Your task to perform on an android device: turn off notifications in google photos Image 0: 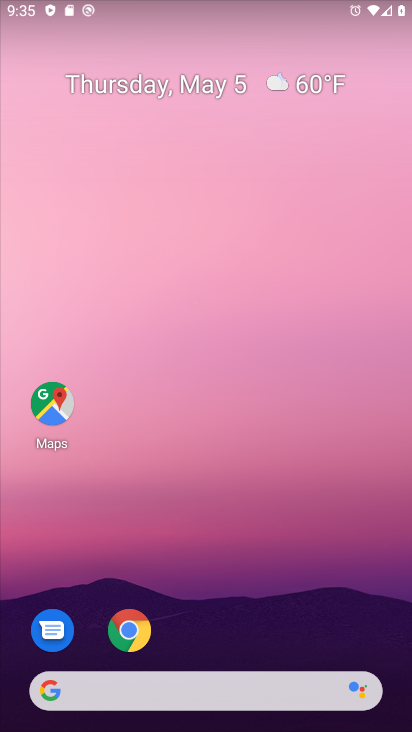
Step 0: drag from (172, 499) to (156, 139)
Your task to perform on an android device: turn off notifications in google photos Image 1: 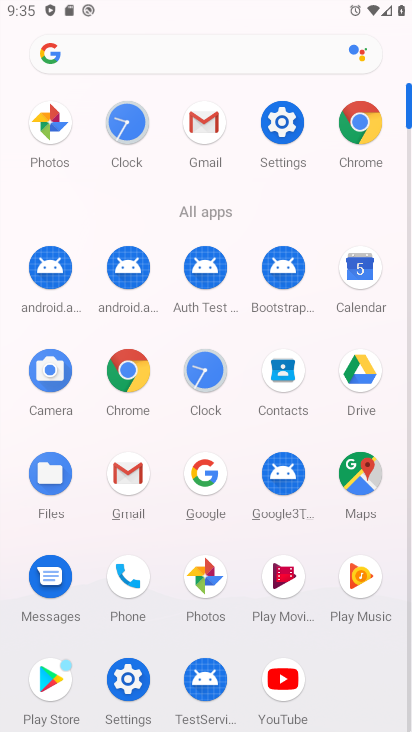
Step 1: click (203, 575)
Your task to perform on an android device: turn off notifications in google photos Image 2: 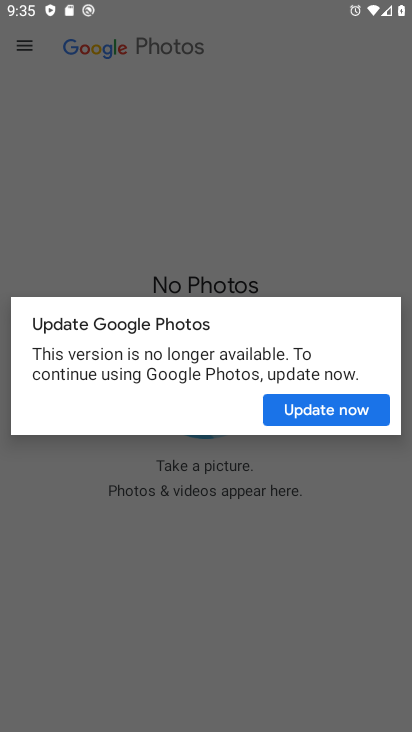
Step 2: click (318, 418)
Your task to perform on an android device: turn off notifications in google photos Image 3: 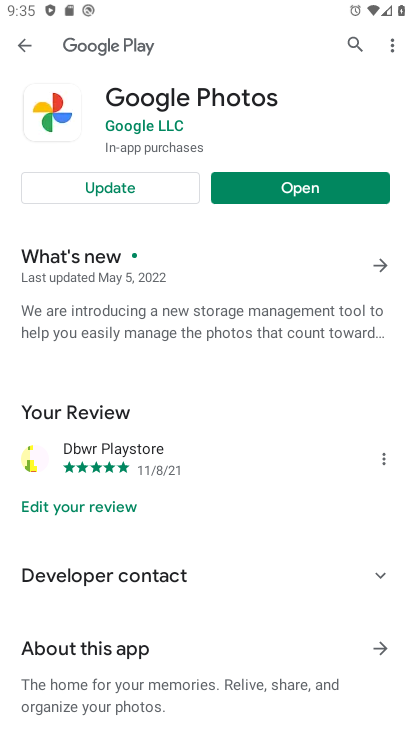
Step 3: click (108, 198)
Your task to perform on an android device: turn off notifications in google photos Image 4: 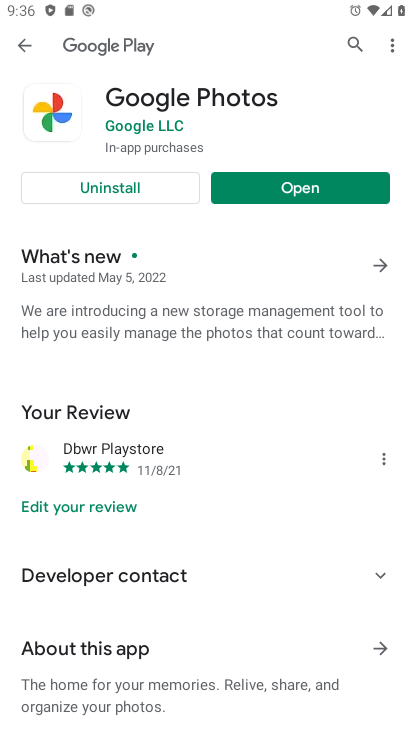
Step 4: click (297, 186)
Your task to perform on an android device: turn off notifications in google photos Image 5: 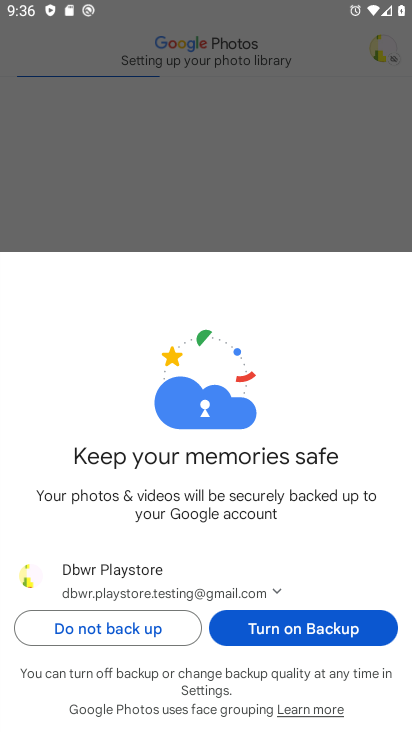
Step 5: click (259, 626)
Your task to perform on an android device: turn off notifications in google photos Image 6: 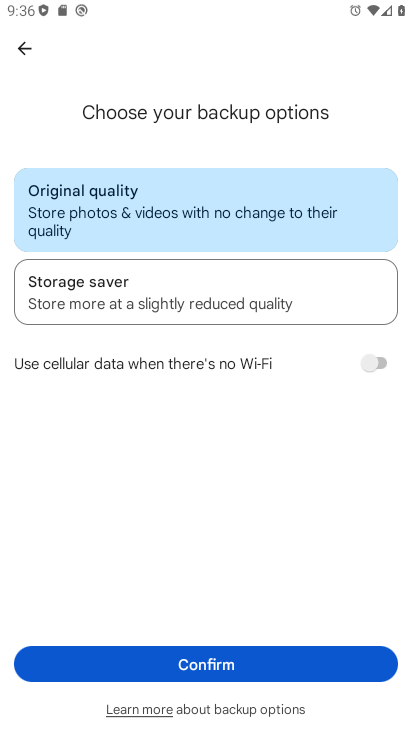
Step 6: click (233, 666)
Your task to perform on an android device: turn off notifications in google photos Image 7: 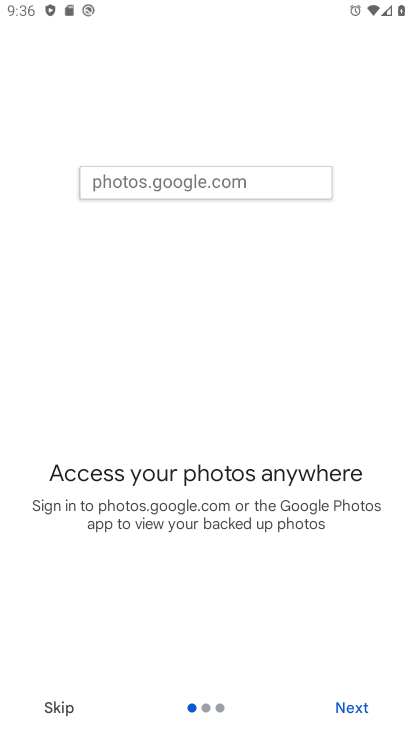
Step 7: click (345, 714)
Your task to perform on an android device: turn off notifications in google photos Image 8: 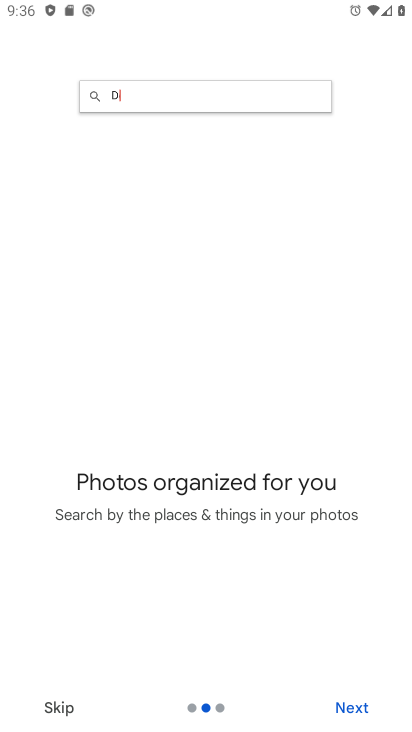
Step 8: click (345, 714)
Your task to perform on an android device: turn off notifications in google photos Image 9: 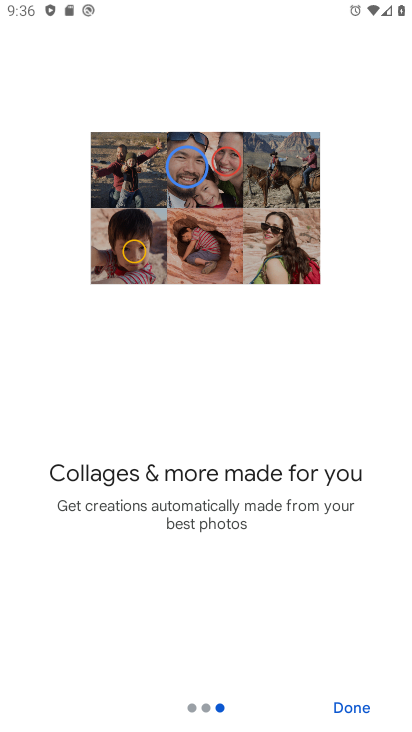
Step 9: click (345, 714)
Your task to perform on an android device: turn off notifications in google photos Image 10: 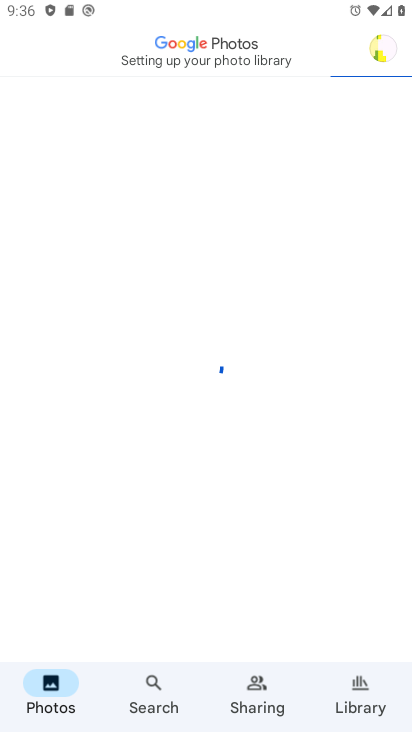
Step 10: click (378, 54)
Your task to perform on an android device: turn off notifications in google photos Image 11: 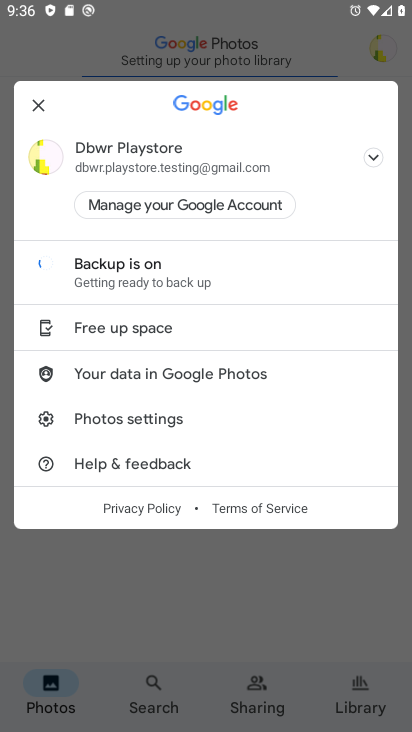
Step 11: click (138, 423)
Your task to perform on an android device: turn off notifications in google photos Image 12: 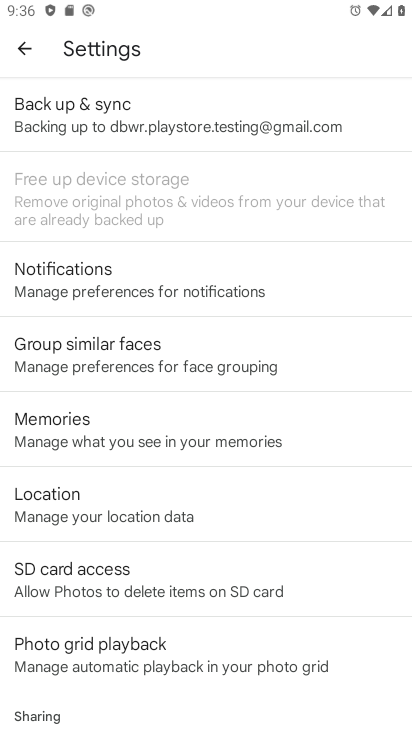
Step 12: click (129, 262)
Your task to perform on an android device: turn off notifications in google photos Image 13: 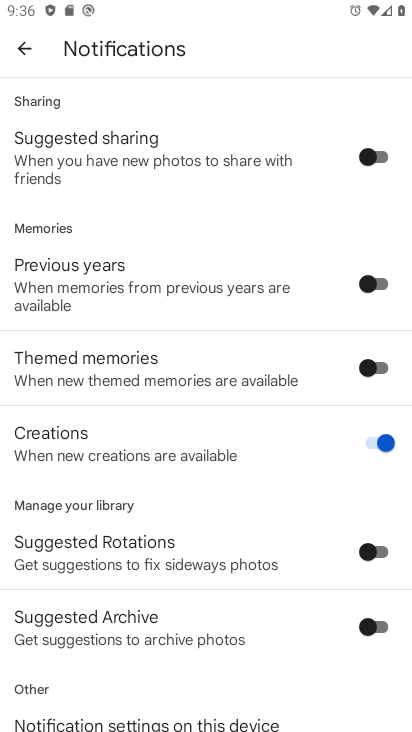
Step 13: drag from (133, 681) to (176, 145)
Your task to perform on an android device: turn off notifications in google photos Image 14: 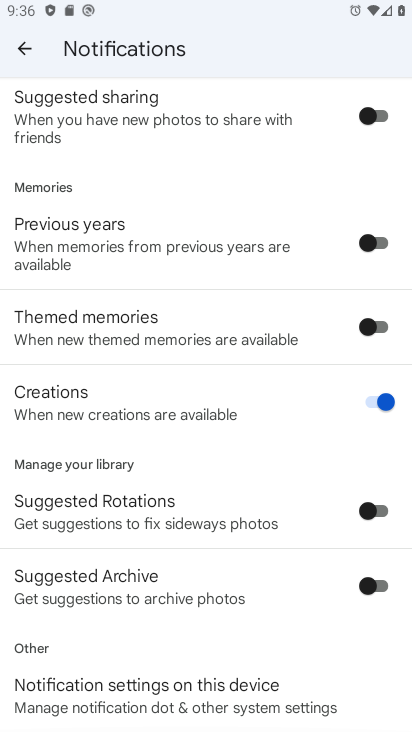
Step 14: click (218, 684)
Your task to perform on an android device: turn off notifications in google photos Image 15: 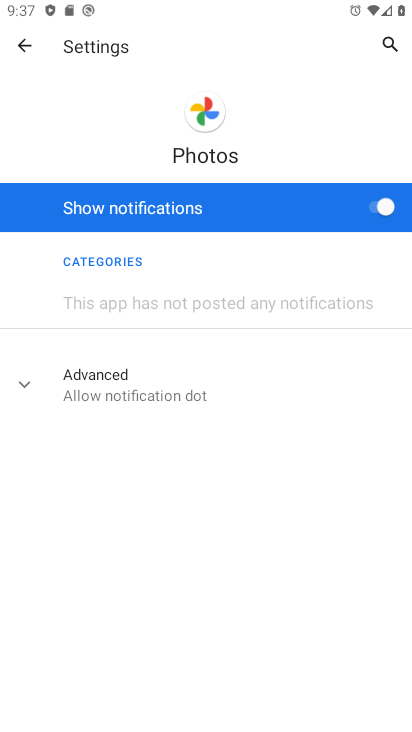
Step 15: click (380, 206)
Your task to perform on an android device: turn off notifications in google photos Image 16: 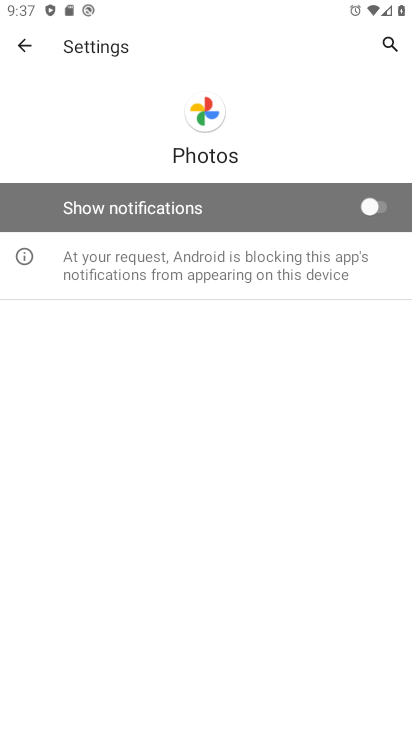
Step 16: task complete